Your task to perform on an android device: add a contact Image 0: 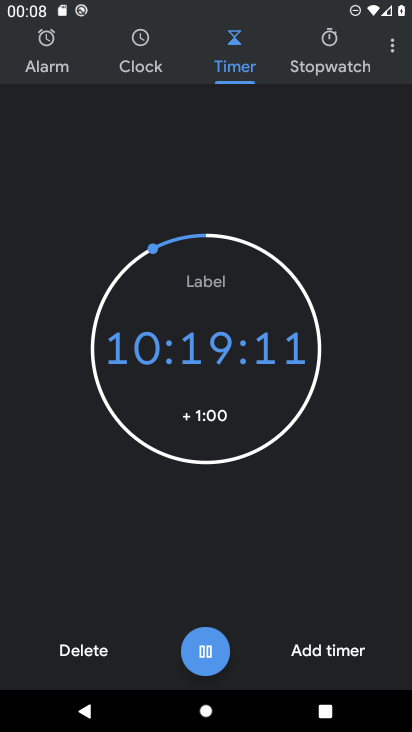
Step 0: press home button
Your task to perform on an android device: add a contact Image 1: 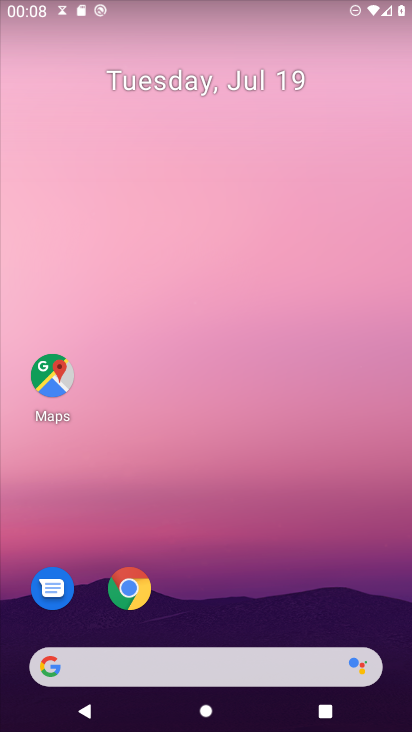
Step 1: drag from (286, 613) to (272, 152)
Your task to perform on an android device: add a contact Image 2: 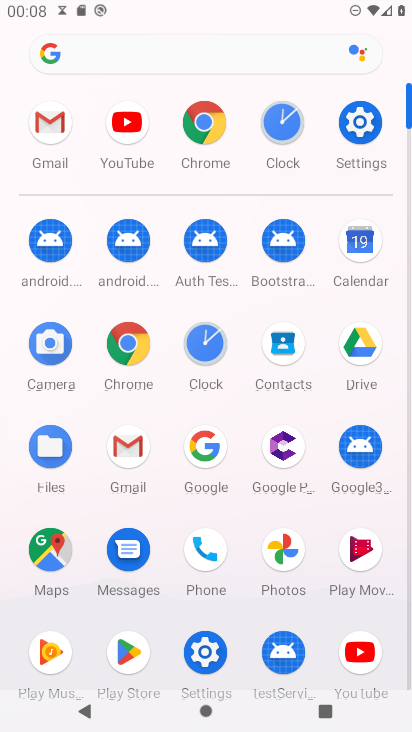
Step 2: click (280, 337)
Your task to perform on an android device: add a contact Image 3: 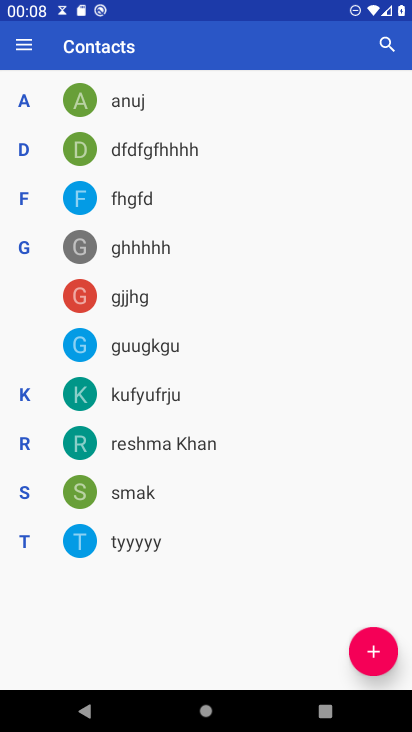
Step 3: click (374, 645)
Your task to perform on an android device: add a contact Image 4: 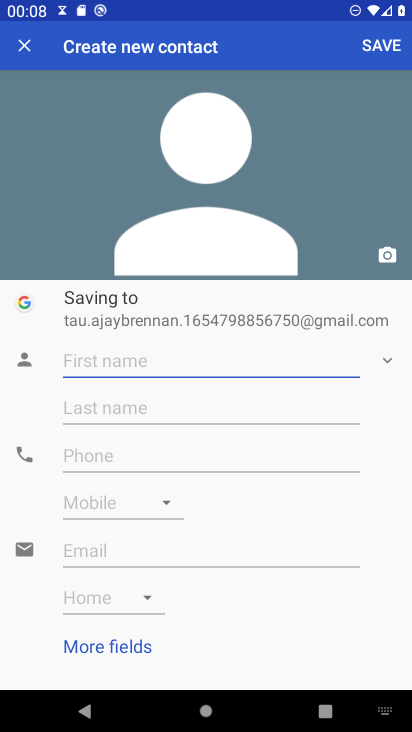
Step 4: type "sscdss"
Your task to perform on an android device: add a contact Image 5: 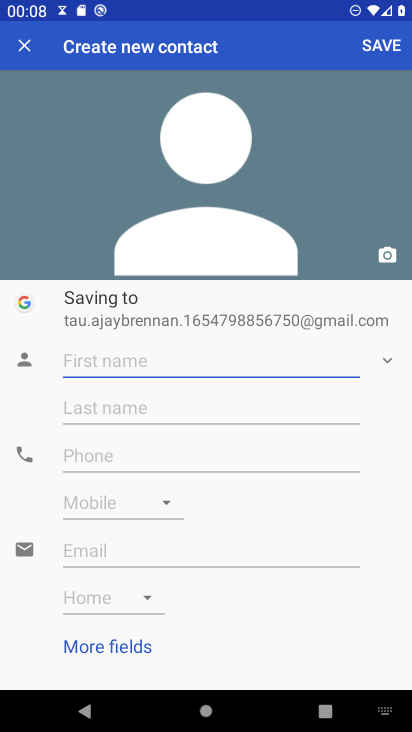
Step 5: click (136, 361)
Your task to perform on an android device: add a contact Image 6: 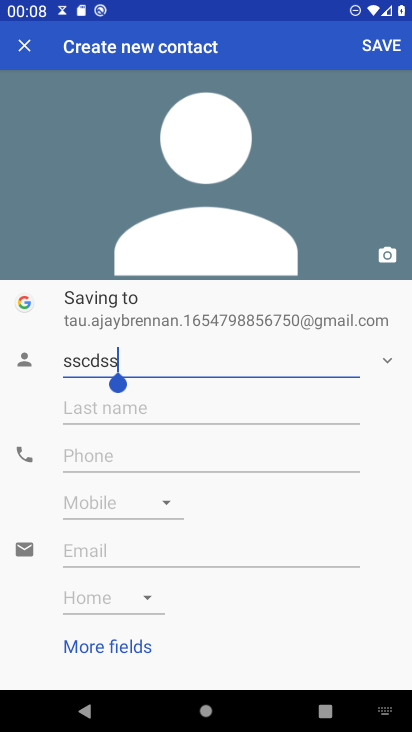
Step 6: click (133, 459)
Your task to perform on an android device: add a contact Image 7: 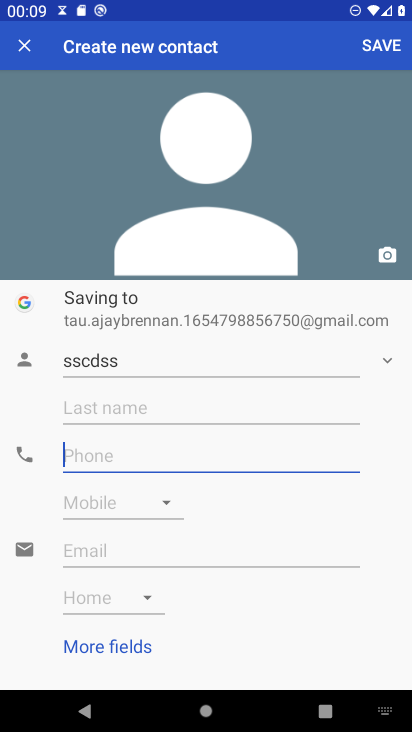
Step 7: type "322455555"
Your task to perform on an android device: add a contact Image 8: 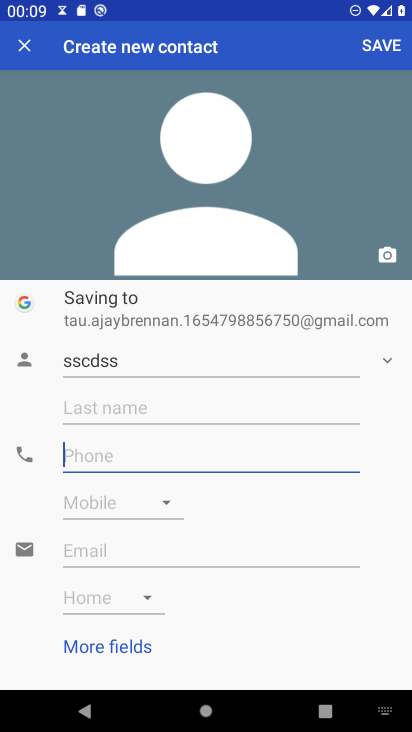
Step 8: click (116, 456)
Your task to perform on an android device: add a contact Image 9: 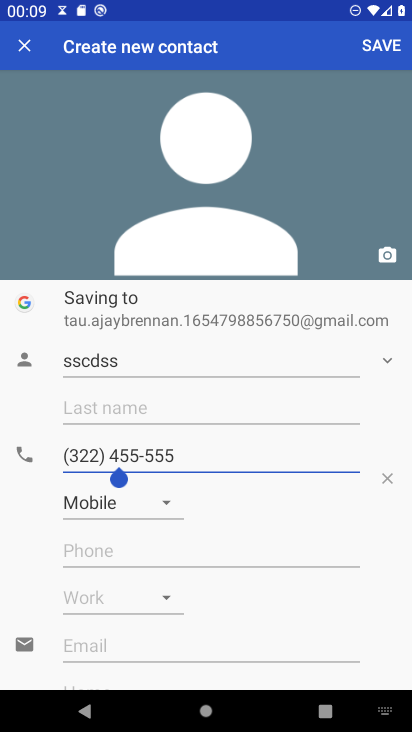
Step 9: click (399, 38)
Your task to perform on an android device: add a contact Image 10: 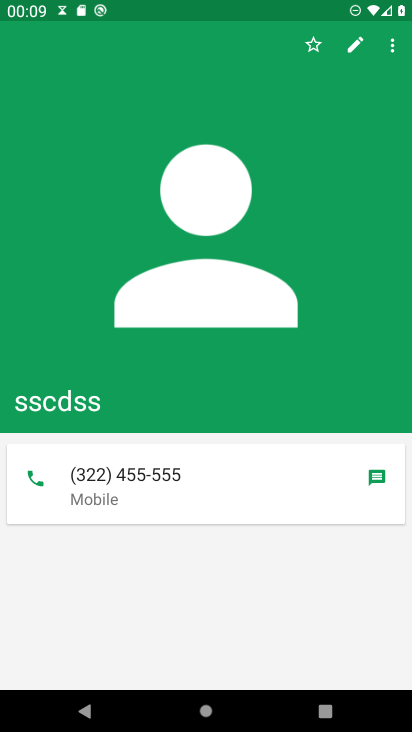
Step 10: task complete